Your task to perform on an android device: toggle pop-ups in chrome Image 0: 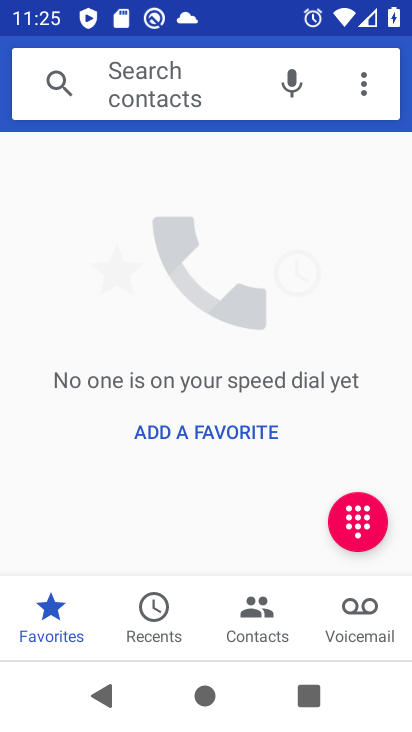
Step 0: press back button
Your task to perform on an android device: toggle pop-ups in chrome Image 1: 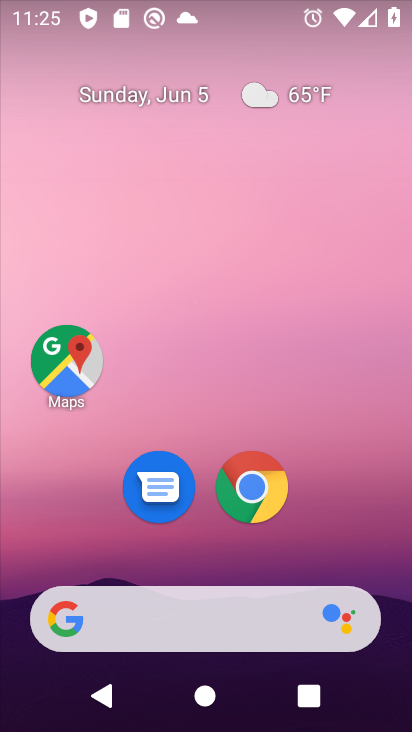
Step 1: click (253, 488)
Your task to perform on an android device: toggle pop-ups in chrome Image 2: 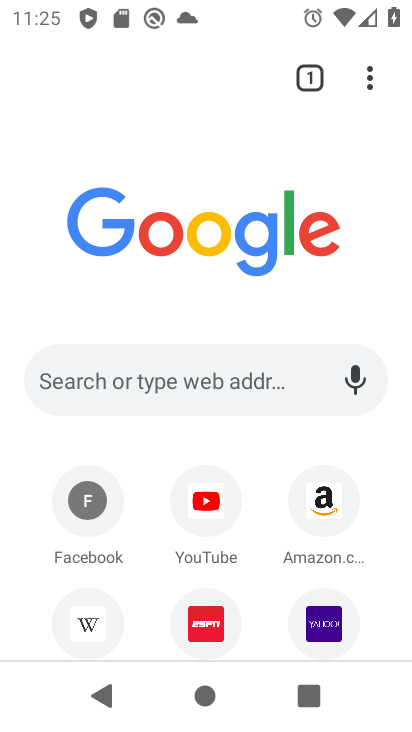
Step 2: click (368, 78)
Your task to perform on an android device: toggle pop-ups in chrome Image 3: 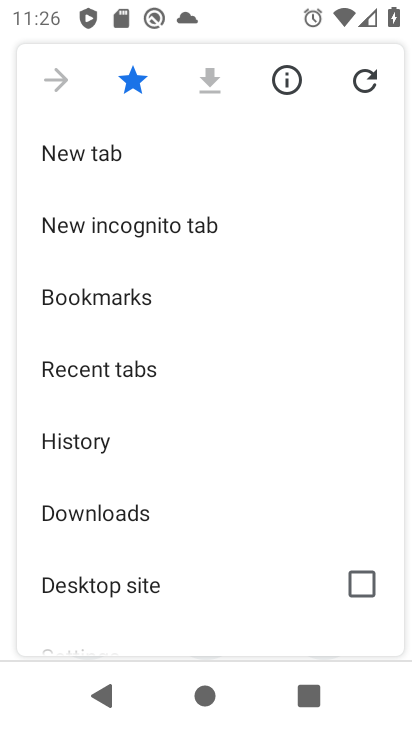
Step 3: drag from (106, 477) to (149, 368)
Your task to perform on an android device: toggle pop-ups in chrome Image 4: 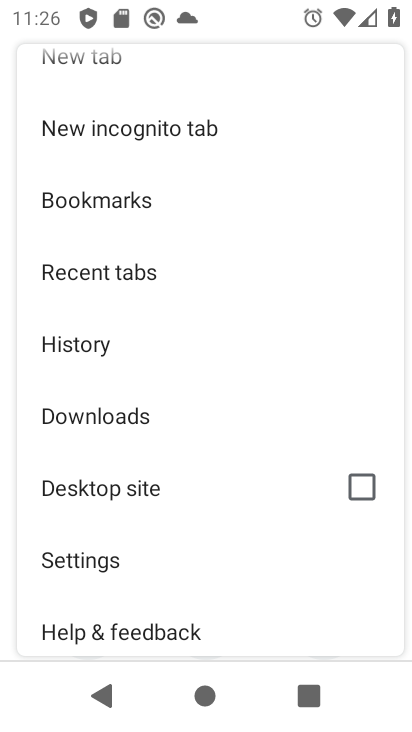
Step 4: click (91, 552)
Your task to perform on an android device: toggle pop-ups in chrome Image 5: 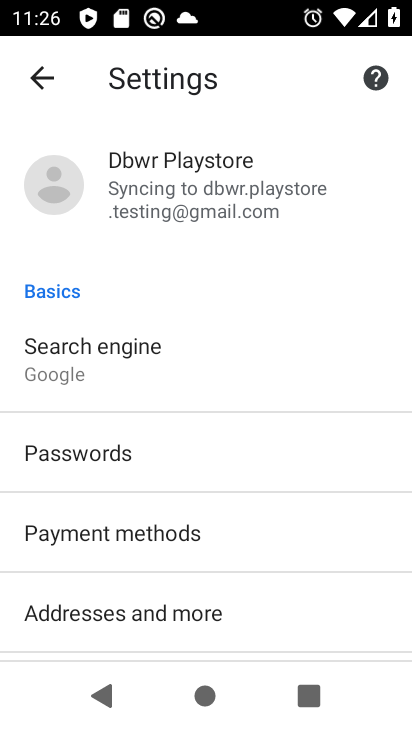
Step 5: drag from (110, 506) to (189, 420)
Your task to perform on an android device: toggle pop-ups in chrome Image 6: 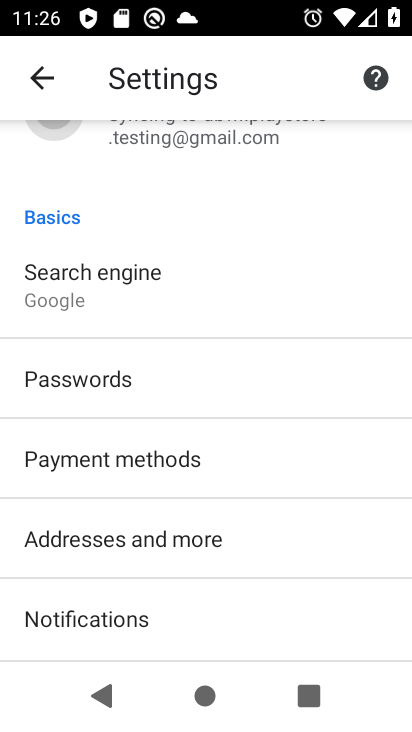
Step 6: drag from (140, 519) to (201, 438)
Your task to perform on an android device: toggle pop-ups in chrome Image 7: 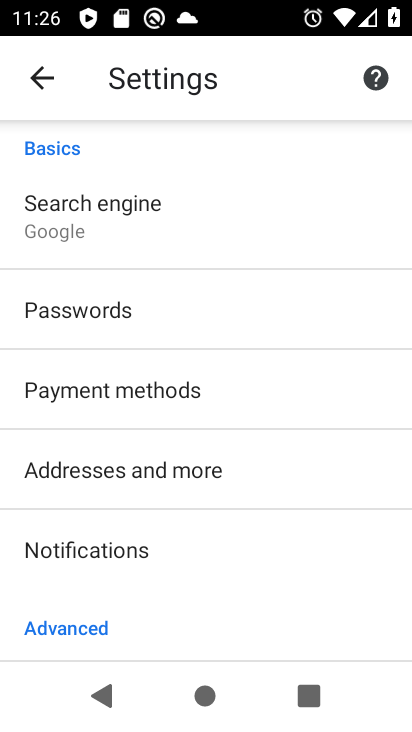
Step 7: drag from (103, 524) to (177, 436)
Your task to perform on an android device: toggle pop-ups in chrome Image 8: 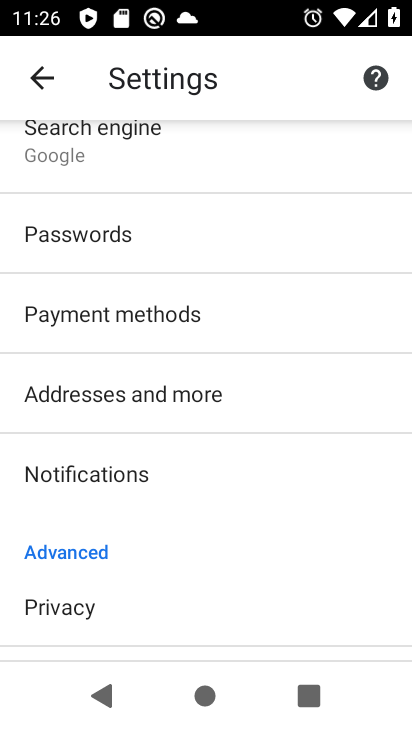
Step 8: drag from (128, 529) to (222, 415)
Your task to perform on an android device: toggle pop-ups in chrome Image 9: 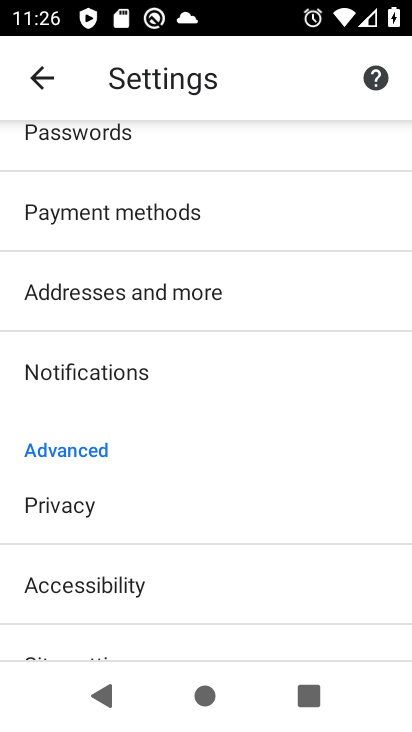
Step 9: drag from (115, 521) to (188, 423)
Your task to perform on an android device: toggle pop-ups in chrome Image 10: 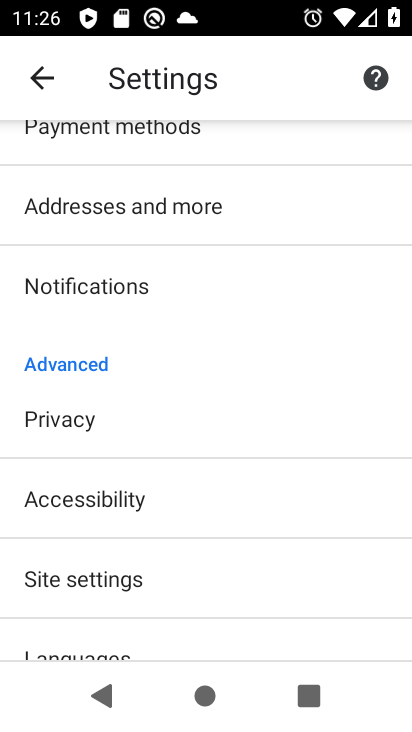
Step 10: click (102, 576)
Your task to perform on an android device: toggle pop-ups in chrome Image 11: 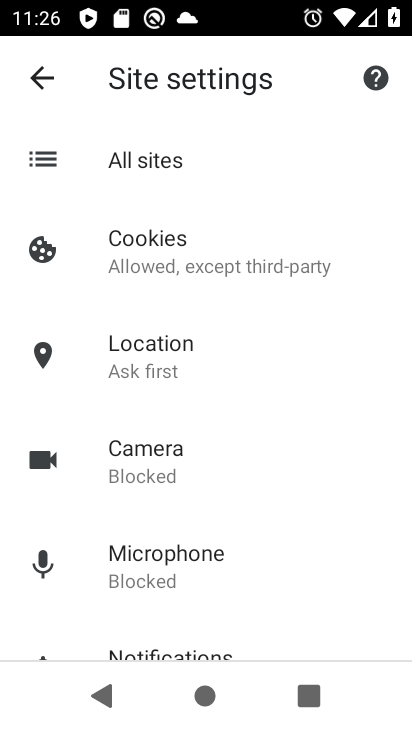
Step 11: drag from (171, 515) to (258, 402)
Your task to perform on an android device: toggle pop-ups in chrome Image 12: 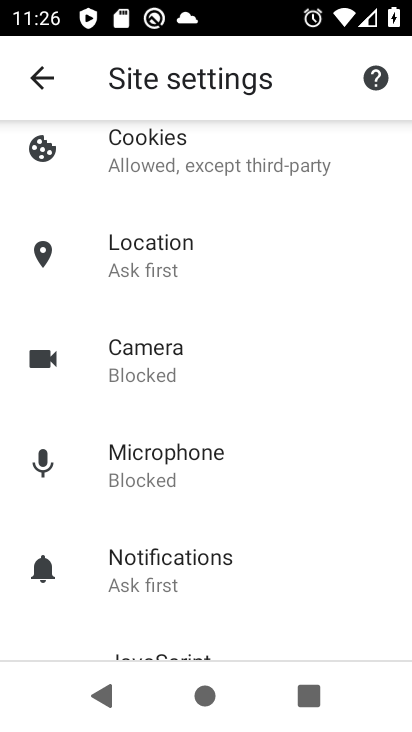
Step 12: drag from (165, 502) to (236, 404)
Your task to perform on an android device: toggle pop-ups in chrome Image 13: 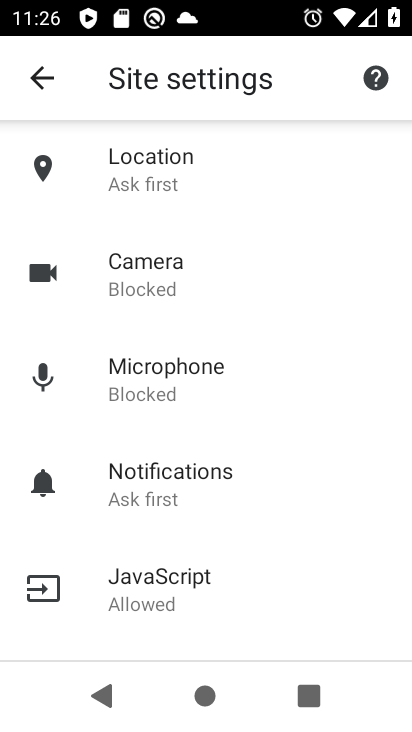
Step 13: drag from (161, 538) to (239, 423)
Your task to perform on an android device: toggle pop-ups in chrome Image 14: 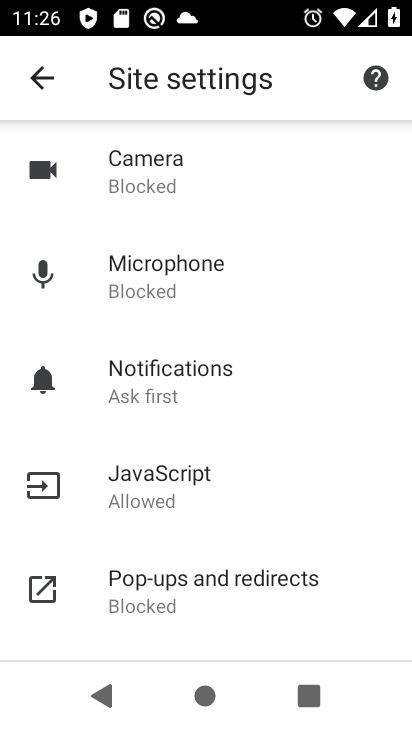
Step 14: drag from (178, 525) to (259, 428)
Your task to perform on an android device: toggle pop-ups in chrome Image 15: 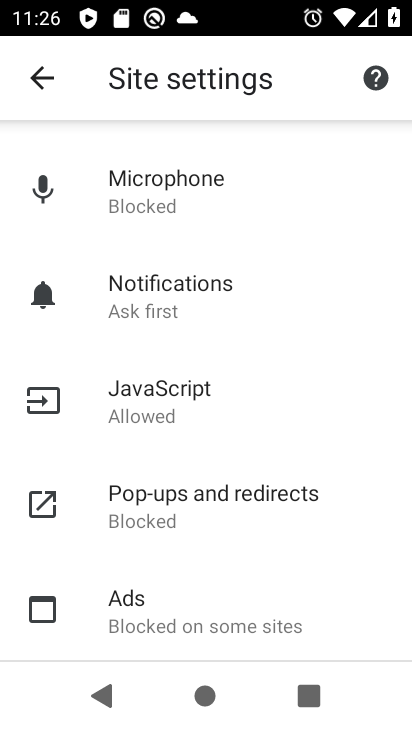
Step 15: click (252, 493)
Your task to perform on an android device: toggle pop-ups in chrome Image 16: 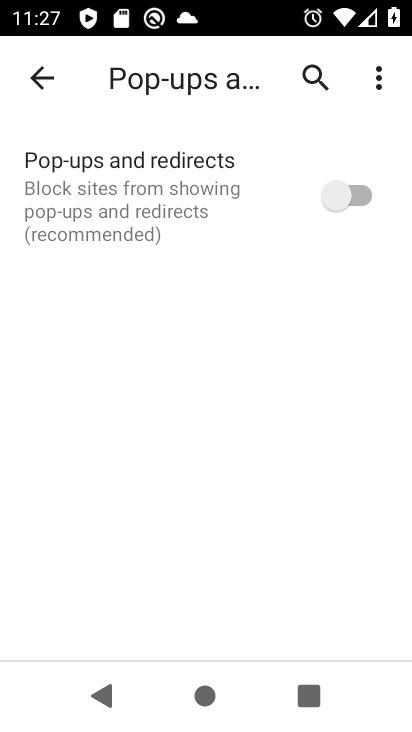
Step 16: click (341, 204)
Your task to perform on an android device: toggle pop-ups in chrome Image 17: 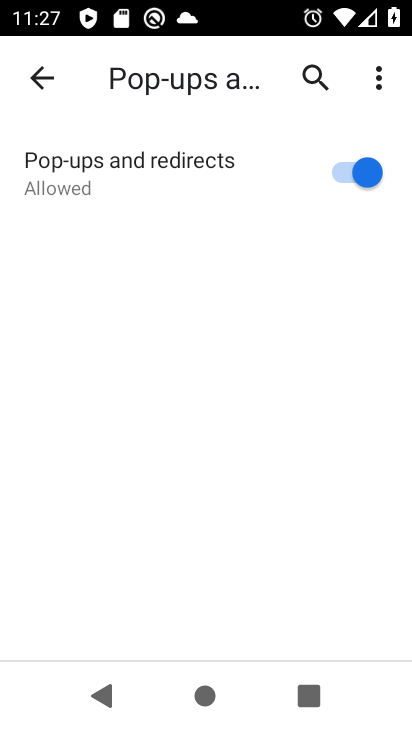
Step 17: task complete